Your task to perform on an android device: snooze an email in the gmail app Image 0: 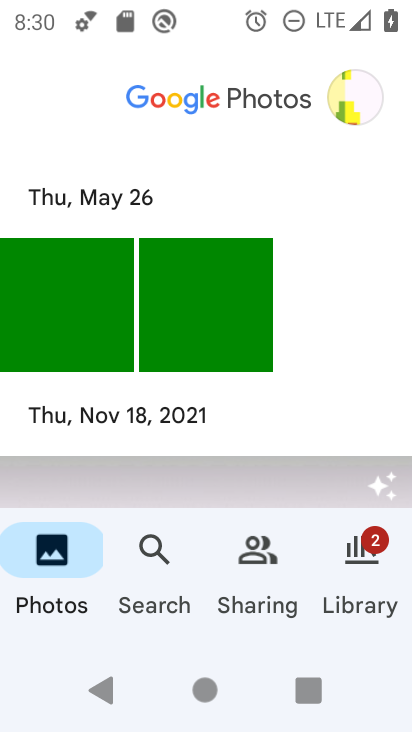
Step 0: press home button
Your task to perform on an android device: snooze an email in the gmail app Image 1: 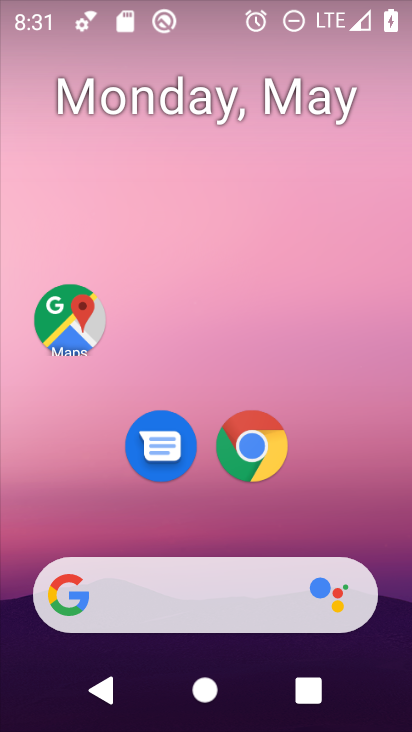
Step 1: drag from (350, 515) to (236, 37)
Your task to perform on an android device: snooze an email in the gmail app Image 2: 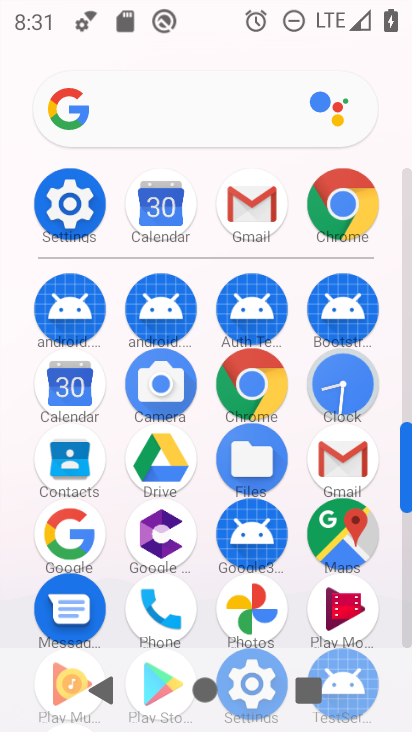
Step 2: click (268, 208)
Your task to perform on an android device: snooze an email in the gmail app Image 3: 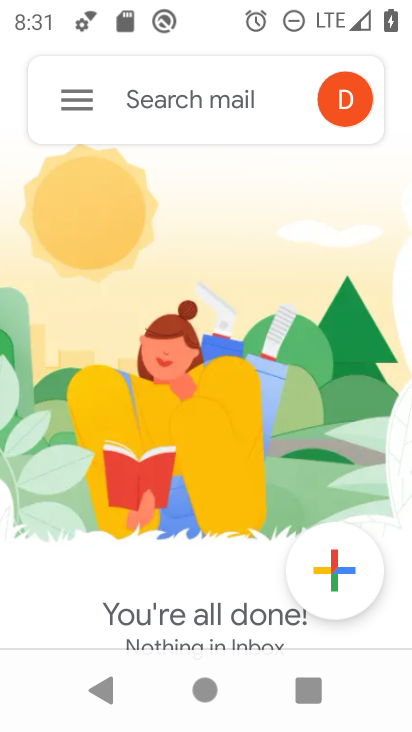
Step 3: click (87, 85)
Your task to perform on an android device: snooze an email in the gmail app Image 4: 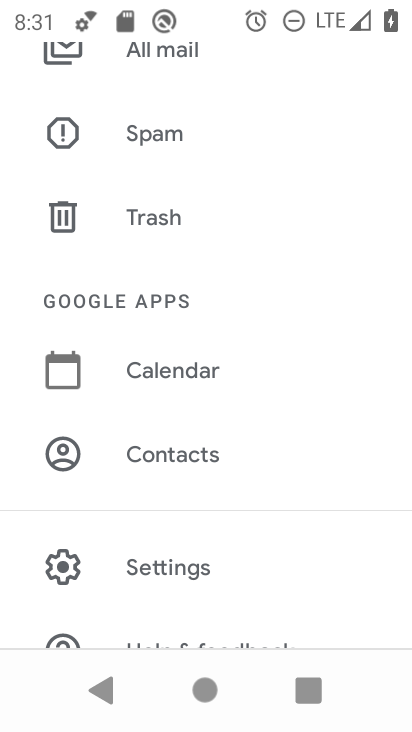
Step 4: click (168, 56)
Your task to perform on an android device: snooze an email in the gmail app Image 5: 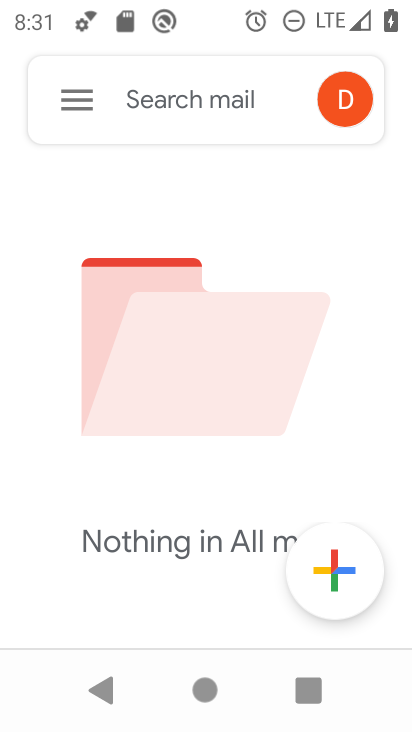
Step 5: drag from (258, 386) to (213, 205)
Your task to perform on an android device: snooze an email in the gmail app Image 6: 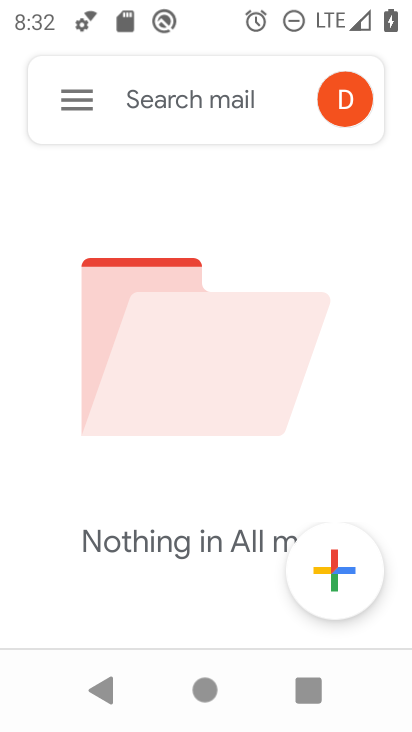
Step 6: click (68, 402)
Your task to perform on an android device: snooze an email in the gmail app Image 7: 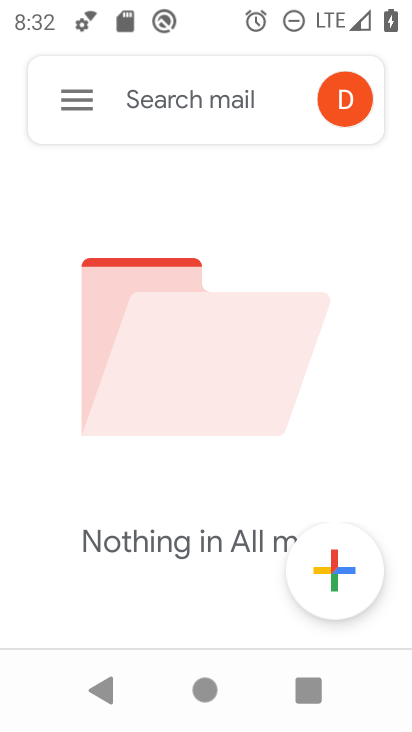
Step 7: task complete